Your task to perform on an android device: Open Google Chrome and open the bookmarks view Image 0: 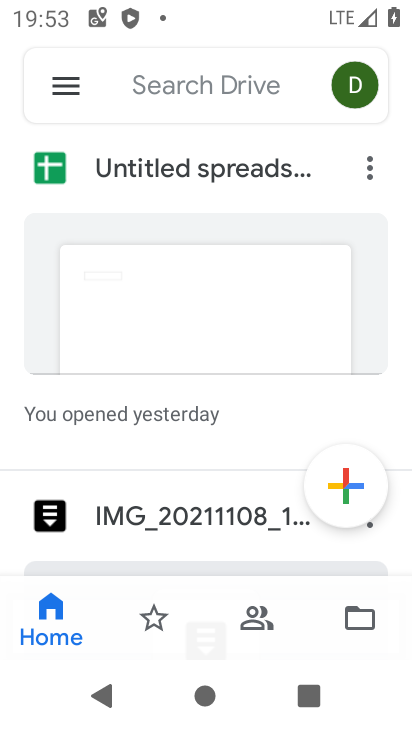
Step 0: press home button
Your task to perform on an android device: Open Google Chrome and open the bookmarks view Image 1: 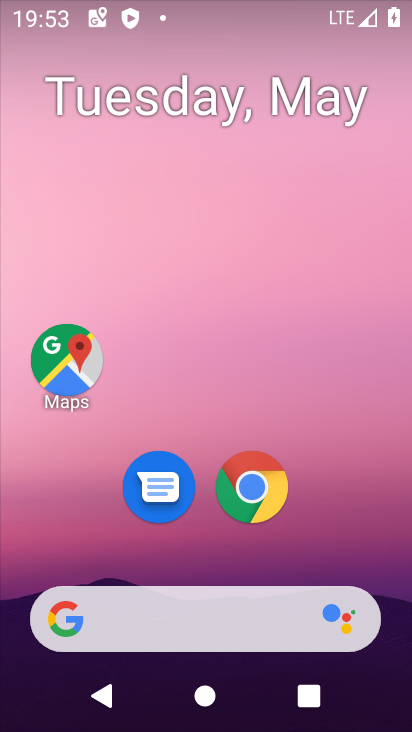
Step 1: click (256, 486)
Your task to perform on an android device: Open Google Chrome and open the bookmarks view Image 2: 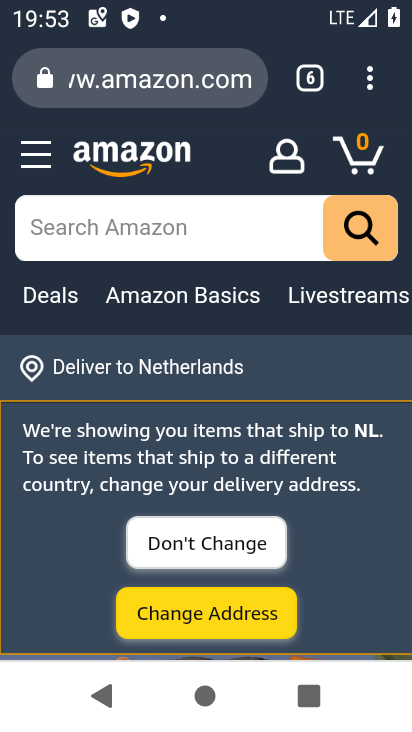
Step 2: click (373, 76)
Your task to perform on an android device: Open Google Chrome and open the bookmarks view Image 3: 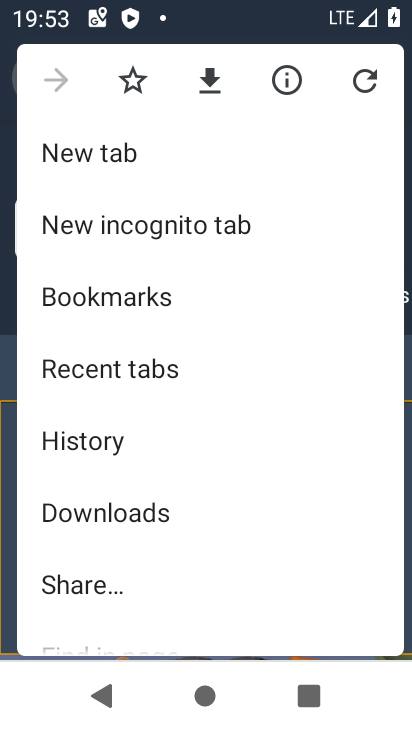
Step 3: click (116, 297)
Your task to perform on an android device: Open Google Chrome and open the bookmarks view Image 4: 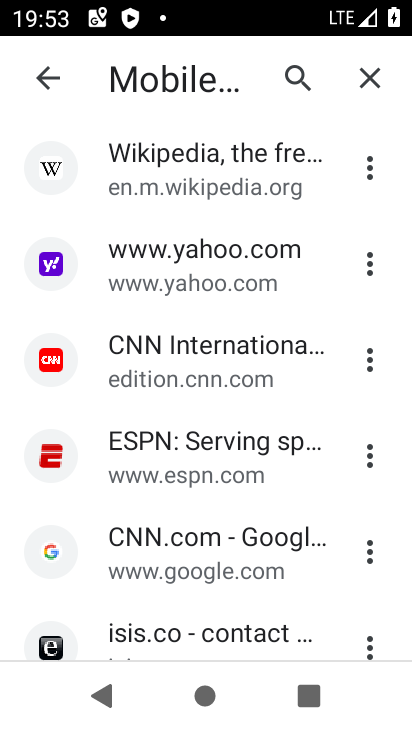
Step 4: click (364, 162)
Your task to perform on an android device: Open Google Chrome and open the bookmarks view Image 5: 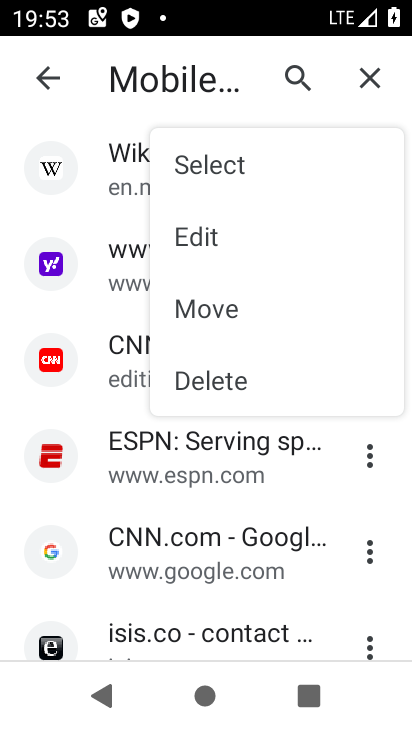
Step 5: click (206, 232)
Your task to perform on an android device: Open Google Chrome and open the bookmarks view Image 6: 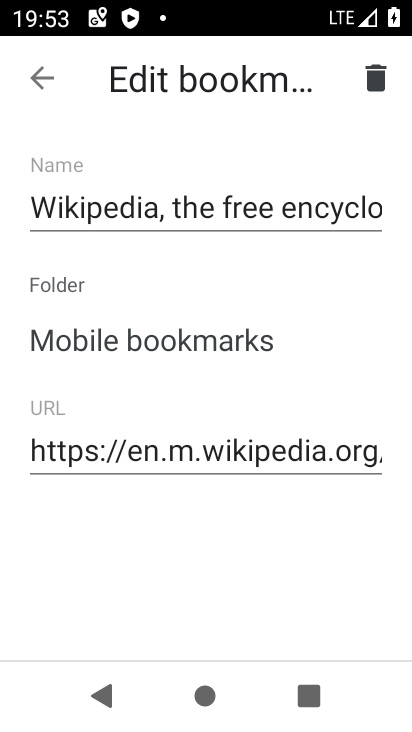
Step 6: task complete